Your task to perform on an android device: Go to network settings Image 0: 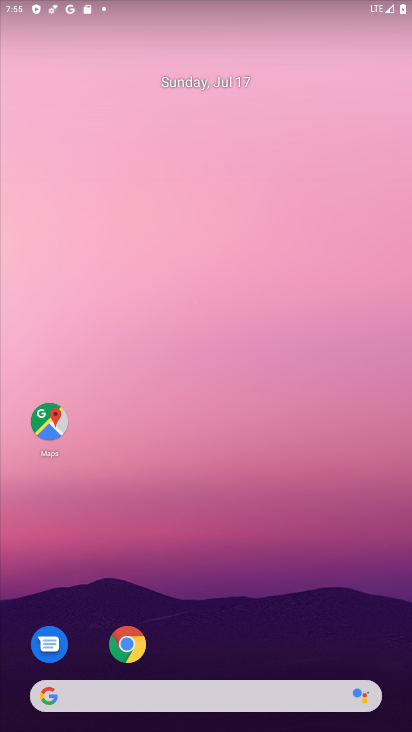
Step 0: drag from (291, 623) to (303, 144)
Your task to perform on an android device: Go to network settings Image 1: 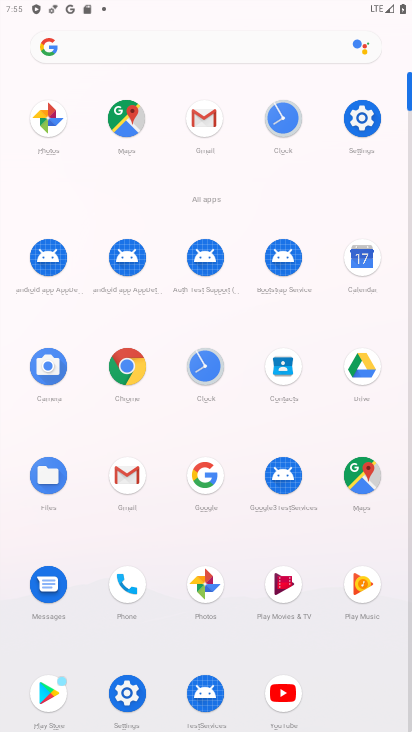
Step 1: click (363, 116)
Your task to perform on an android device: Go to network settings Image 2: 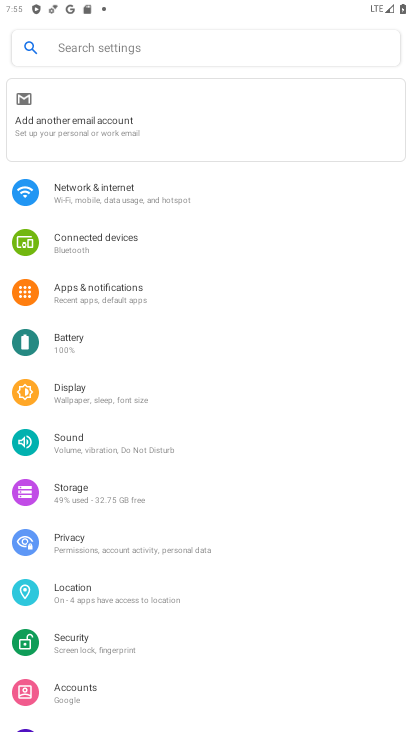
Step 2: click (149, 192)
Your task to perform on an android device: Go to network settings Image 3: 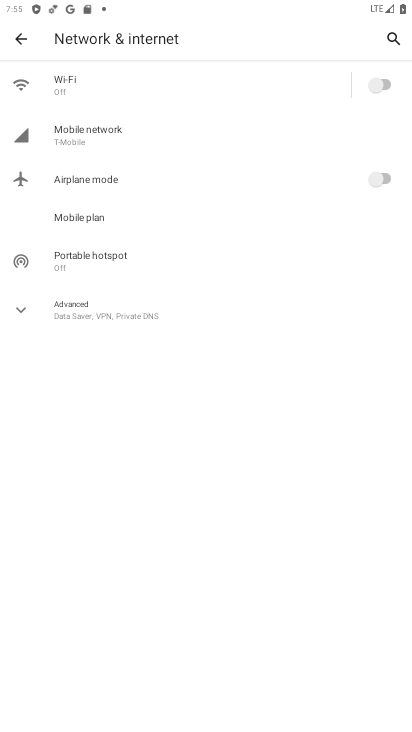
Step 3: click (101, 139)
Your task to perform on an android device: Go to network settings Image 4: 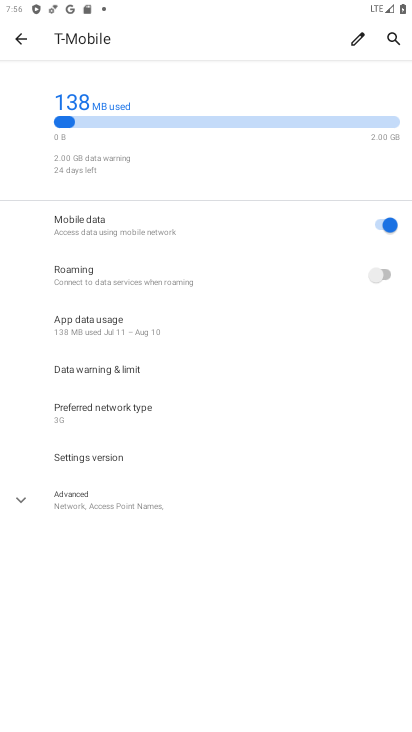
Step 4: task complete